Your task to perform on an android device: Go to Maps Image 0: 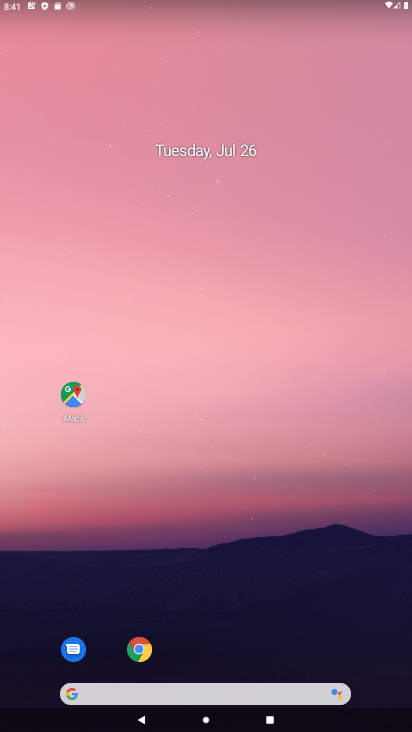
Step 0: click (214, 7)
Your task to perform on an android device: Go to Maps Image 1: 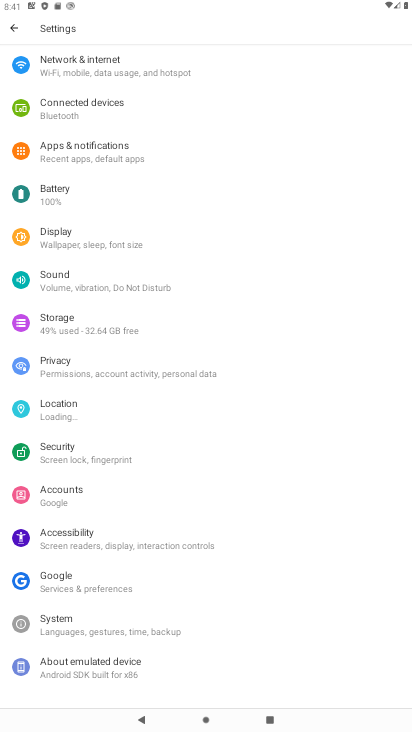
Step 1: drag from (198, 629) to (240, 260)
Your task to perform on an android device: Go to Maps Image 2: 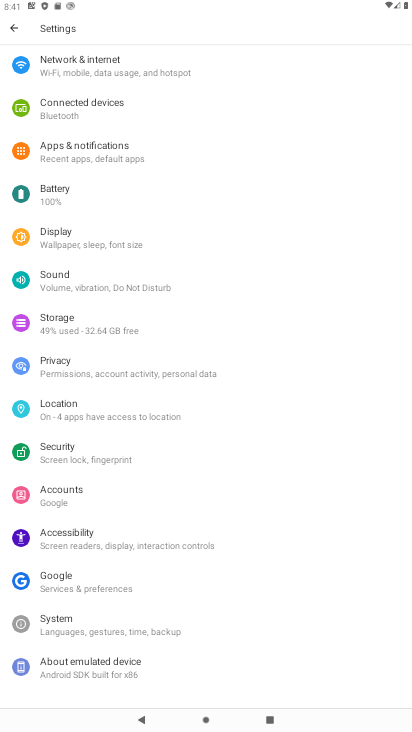
Step 2: press home button
Your task to perform on an android device: Go to Maps Image 3: 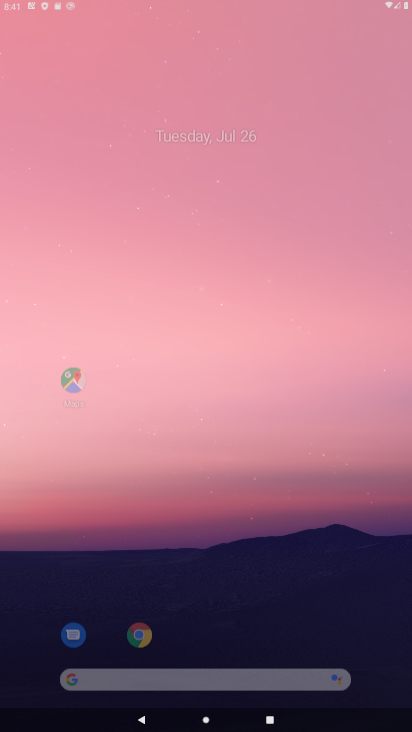
Step 3: drag from (130, 634) to (163, 208)
Your task to perform on an android device: Go to Maps Image 4: 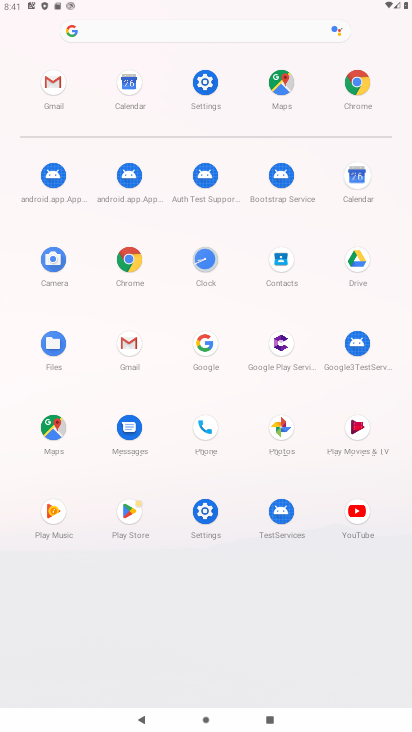
Step 4: click (274, 82)
Your task to perform on an android device: Go to Maps Image 5: 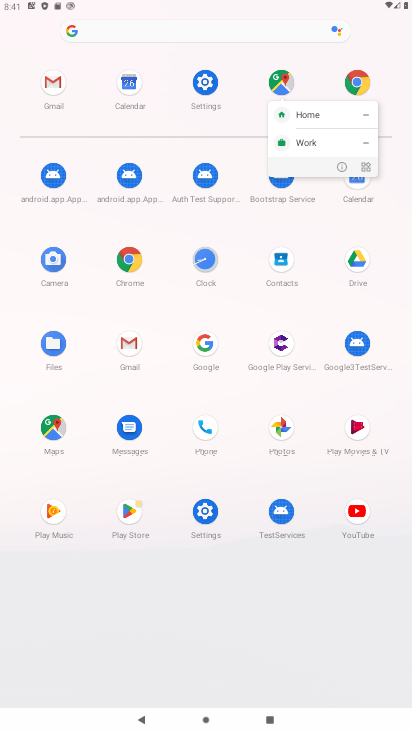
Step 5: click (329, 160)
Your task to perform on an android device: Go to Maps Image 6: 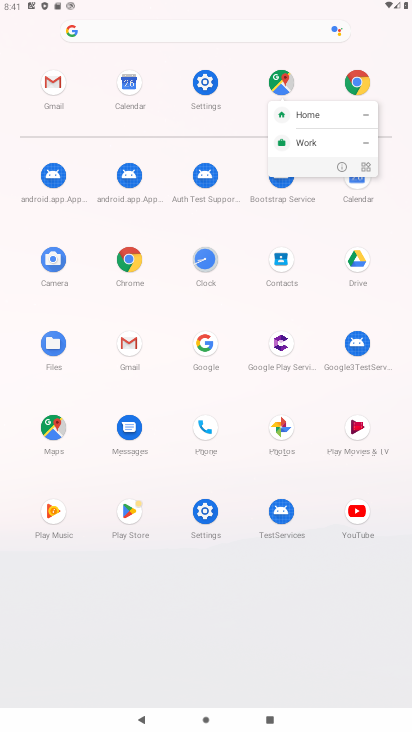
Step 6: click (329, 160)
Your task to perform on an android device: Go to Maps Image 7: 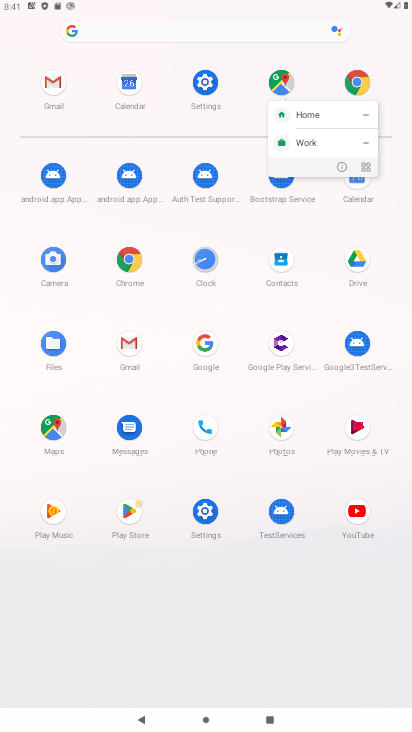
Step 7: click (330, 178)
Your task to perform on an android device: Go to Maps Image 8: 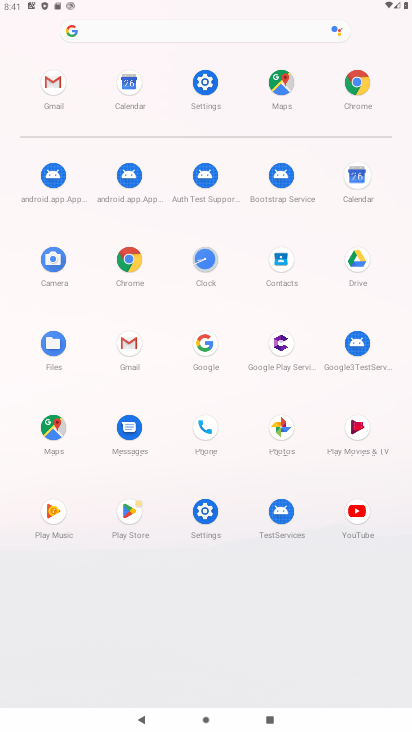
Step 8: click (273, 89)
Your task to perform on an android device: Go to Maps Image 9: 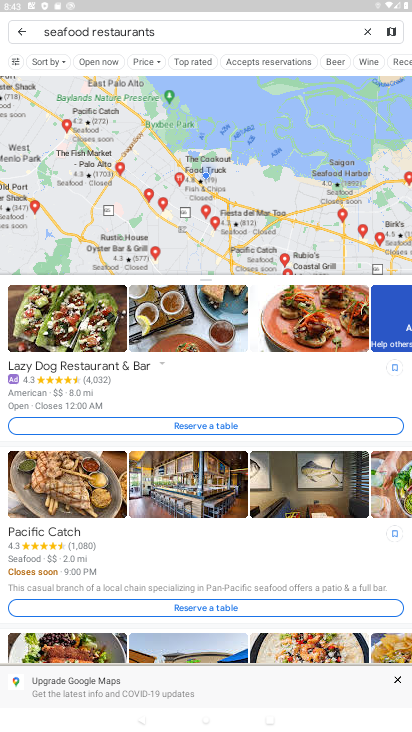
Step 9: task complete